Your task to perform on an android device: turn on location history Image 0: 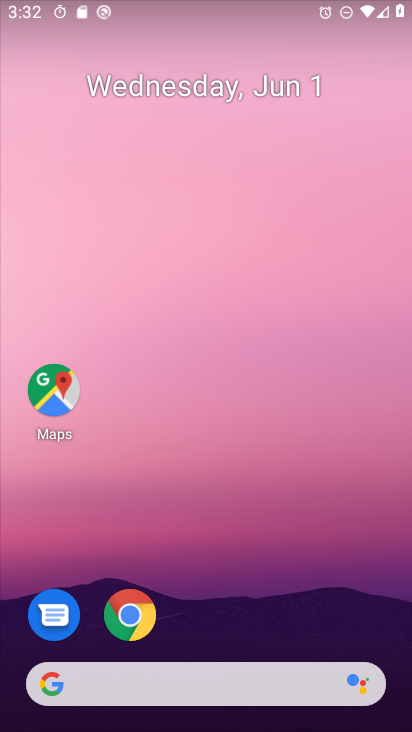
Step 0: drag from (271, 609) to (220, 201)
Your task to perform on an android device: turn on location history Image 1: 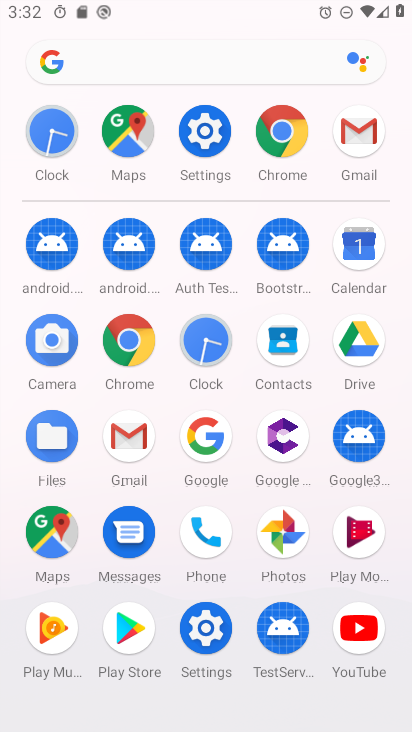
Step 1: click (169, 152)
Your task to perform on an android device: turn on location history Image 2: 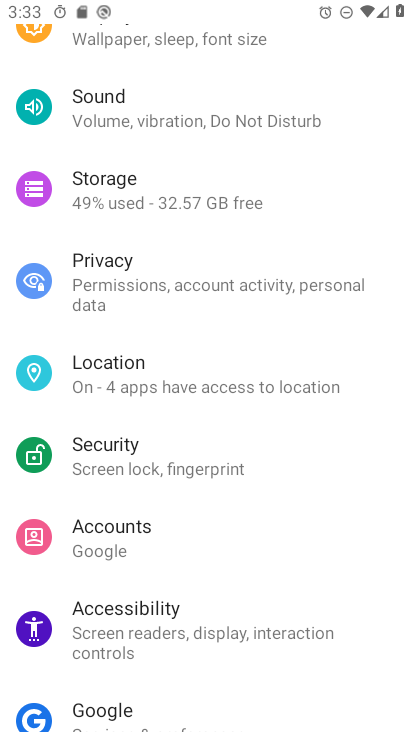
Step 2: click (208, 384)
Your task to perform on an android device: turn on location history Image 3: 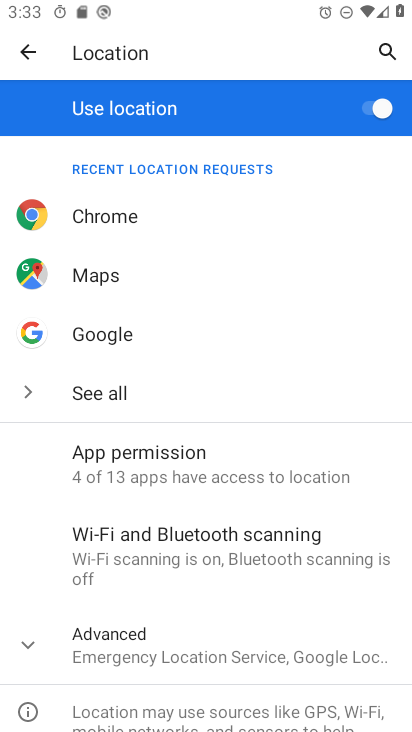
Step 3: drag from (294, 437) to (280, 163)
Your task to perform on an android device: turn on location history Image 4: 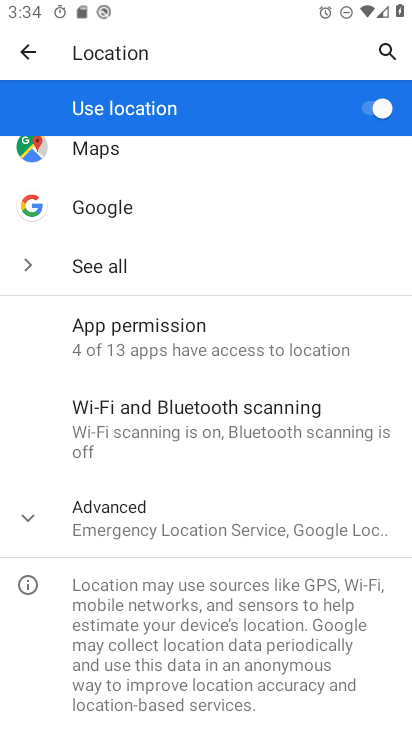
Step 4: click (174, 536)
Your task to perform on an android device: turn on location history Image 5: 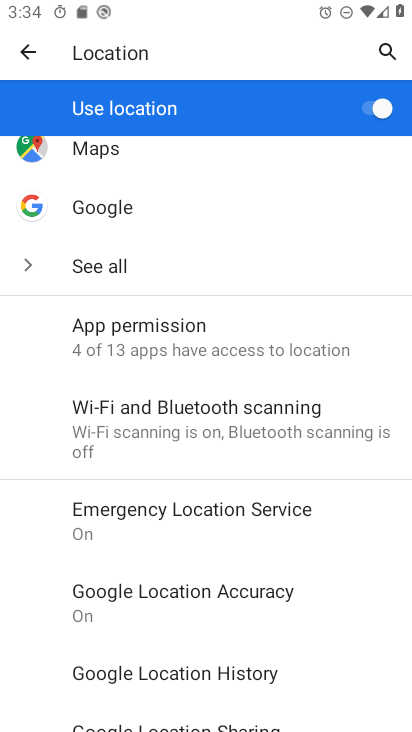
Step 5: drag from (338, 544) to (331, 294)
Your task to perform on an android device: turn on location history Image 6: 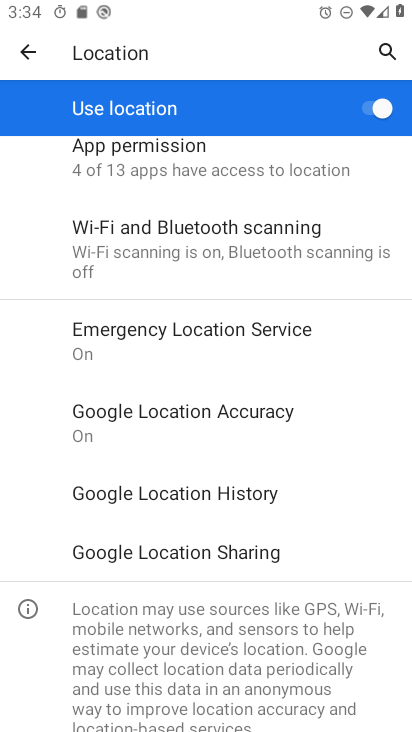
Step 6: click (232, 494)
Your task to perform on an android device: turn on location history Image 7: 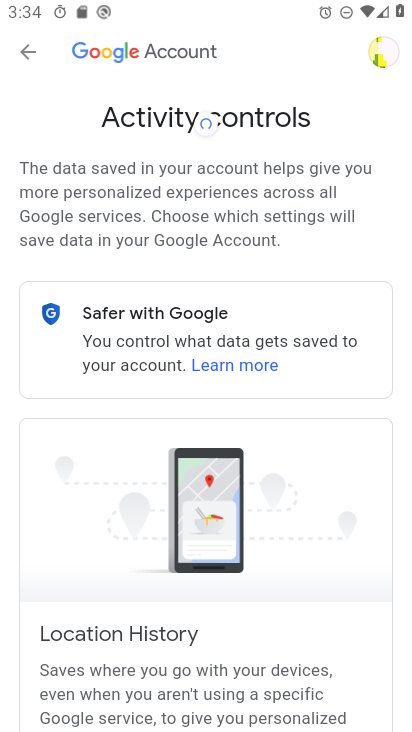
Step 7: task complete